Your task to perform on an android device: Show me popular videos on Youtube Image 0: 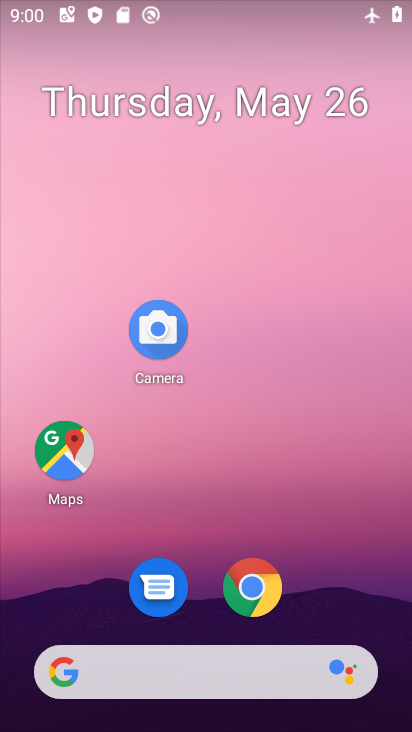
Step 0: drag from (195, 620) to (206, 200)
Your task to perform on an android device: Show me popular videos on Youtube Image 1: 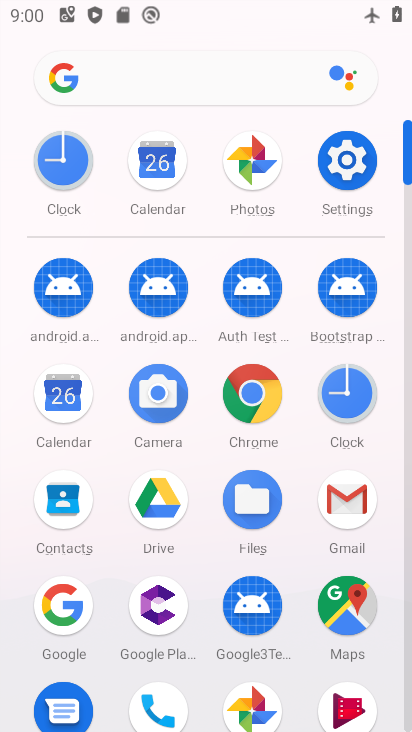
Step 1: drag from (201, 597) to (239, 318)
Your task to perform on an android device: Show me popular videos on Youtube Image 2: 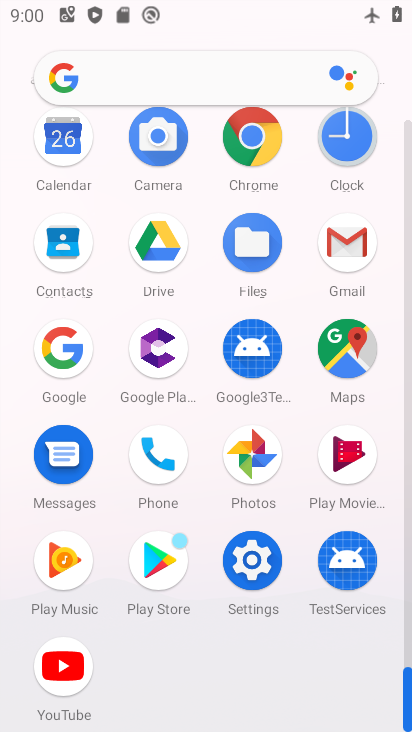
Step 2: click (87, 682)
Your task to perform on an android device: Show me popular videos on Youtube Image 3: 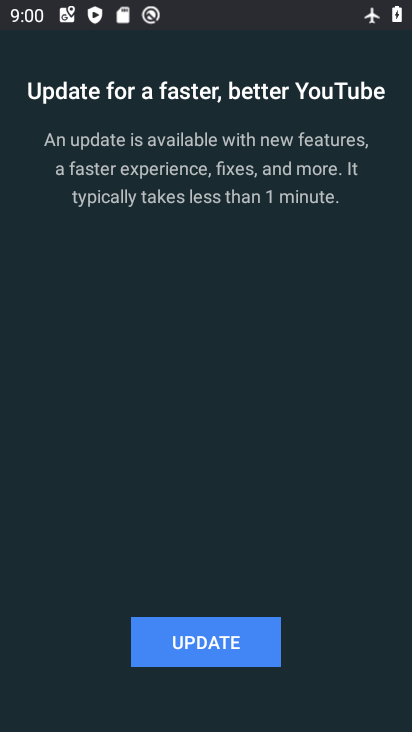
Step 3: drag from (241, 640) to (191, 640)
Your task to perform on an android device: Show me popular videos on Youtube Image 4: 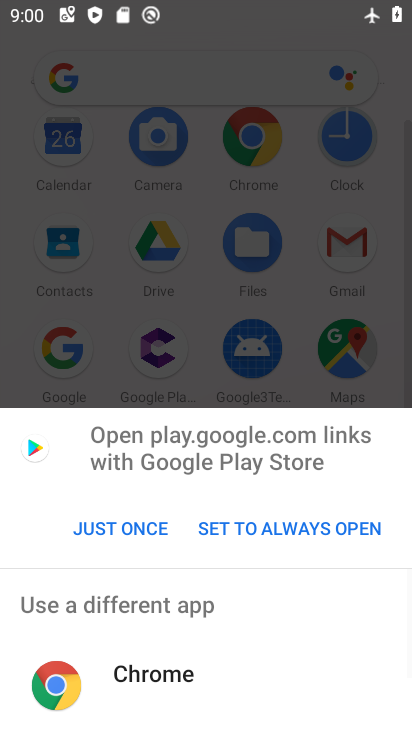
Step 4: click (148, 533)
Your task to perform on an android device: Show me popular videos on Youtube Image 5: 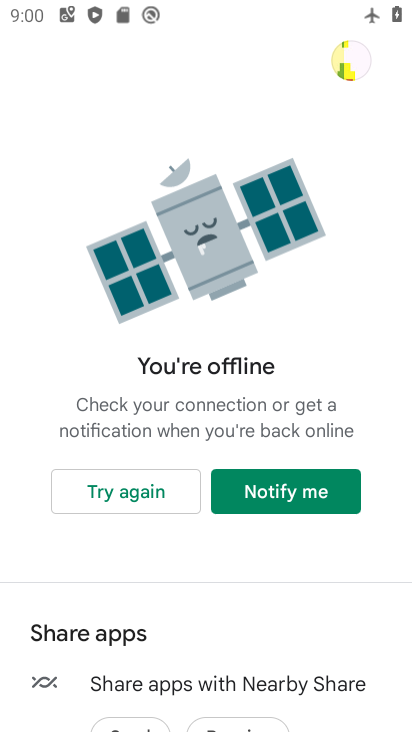
Step 5: task complete